Your task to perform on an android device: see tabs open on other devices in the chrome app Image 0: 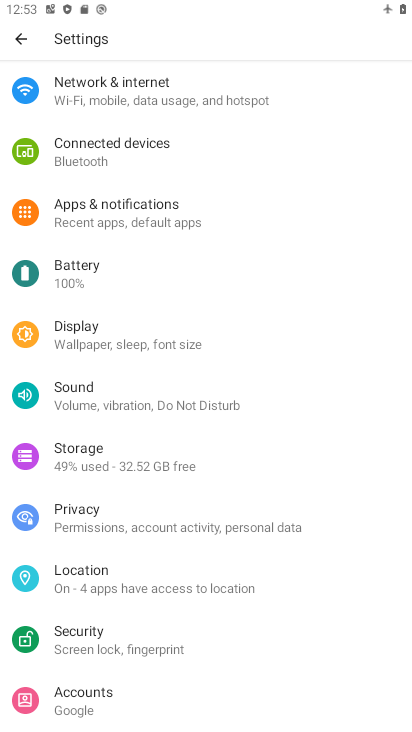
Step 0: press home button
Your task to perform on an android device: see tabs open on other devices in the chrome app Image 1: 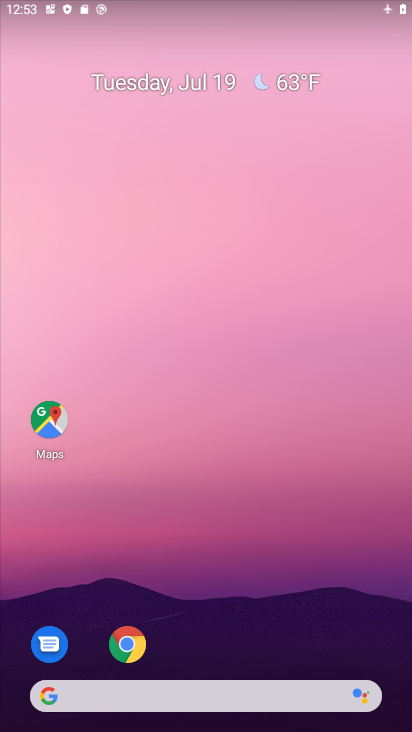
Step 1: click (123, 643)
Your task to perform on an android device: see tabs open on other devices in the chrome app Image 2: 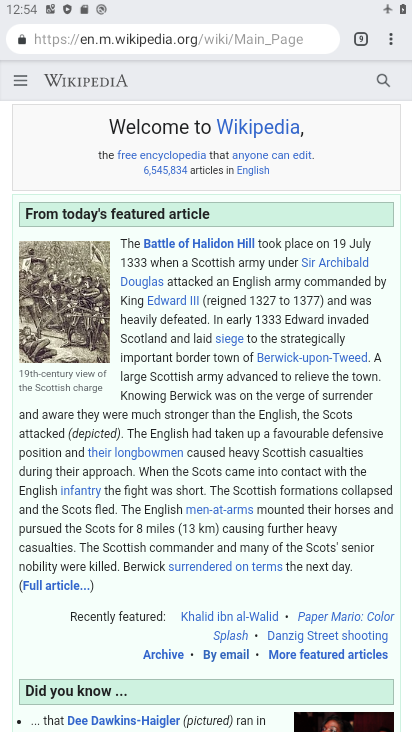
Step 2: click (392, 39)
Your task to perform on an android device: see tabs open on other devices in the chrome app Image 3: 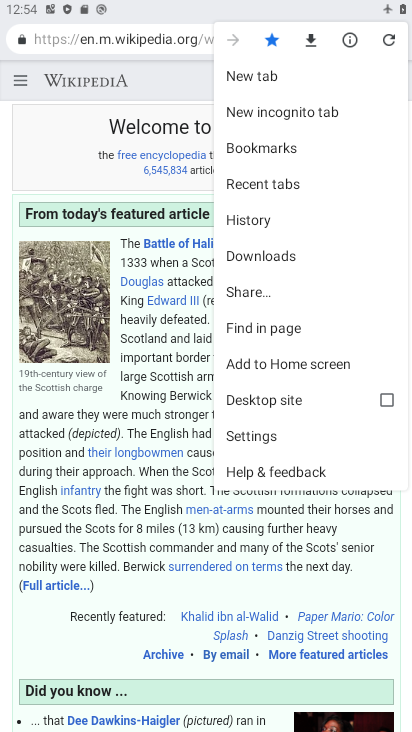
Step 3: click (255, 181)
Your task to perform on an android device: see tabs open on other devices in the chrome app Image 4: 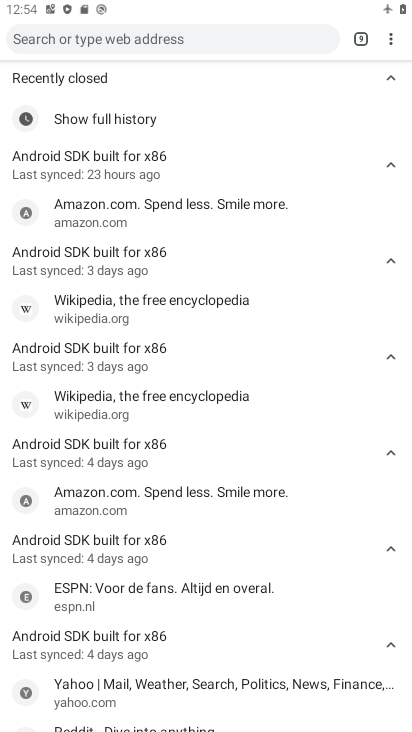
Step 4: task complete